Your task to perform on an android device: show emergency info Image 0: 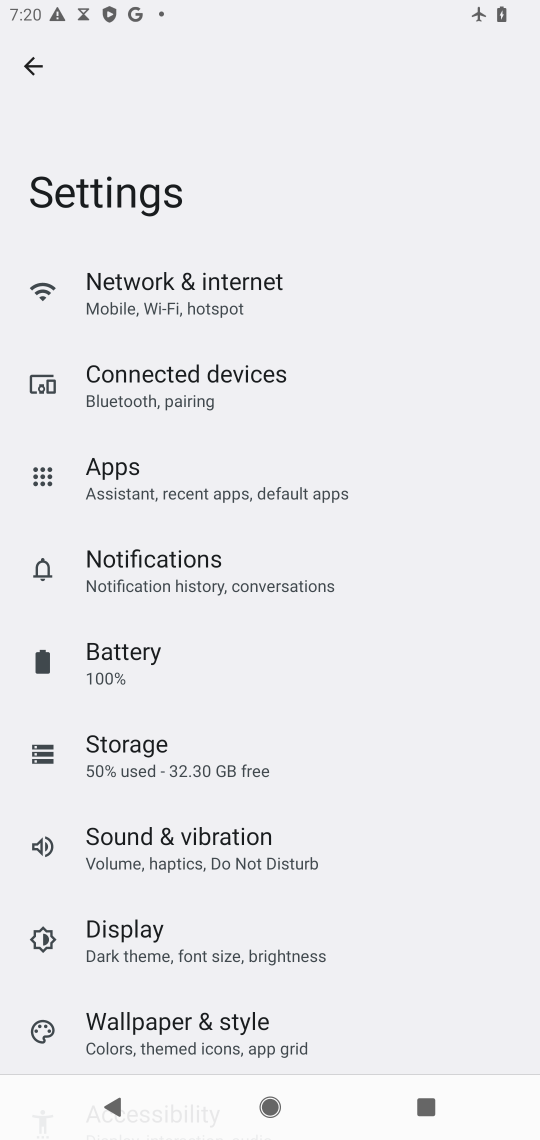
Step 0: press home button
Your task to perform on an android device: show emergency info Image 1: 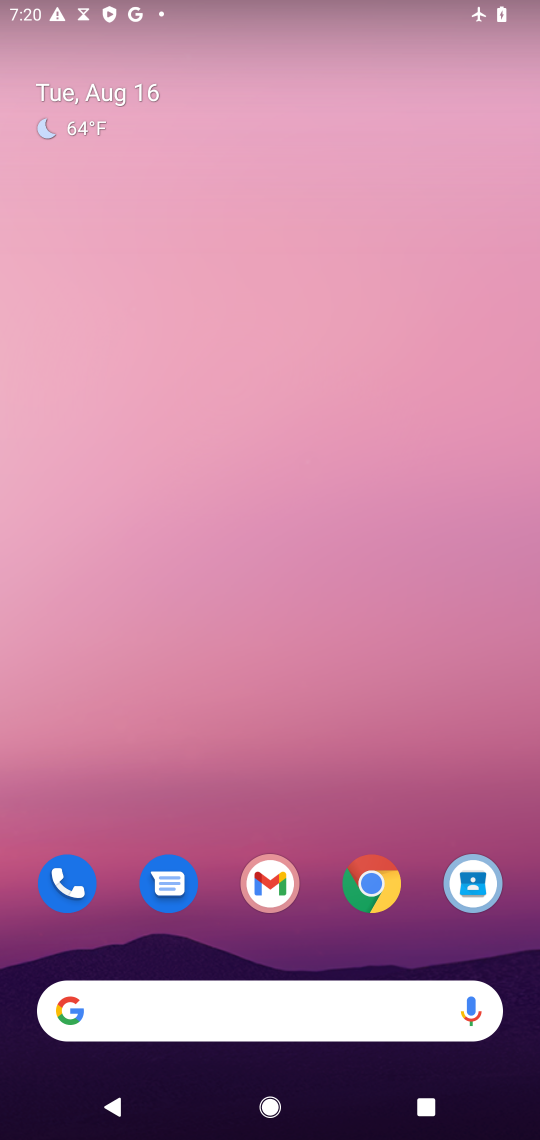
Step 1: drag from (259, 1017) to (280, 210)
Your task to perform on an android device: show emergency info Image 2: 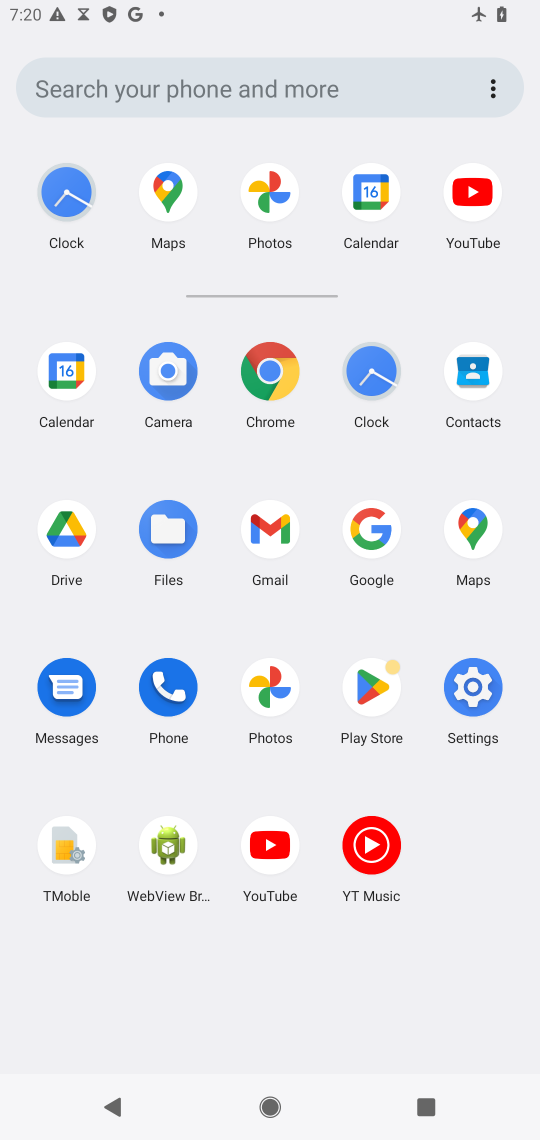
Step 2: click (472, 690)
Your task to perform on an android device: show emergency info Image 3: 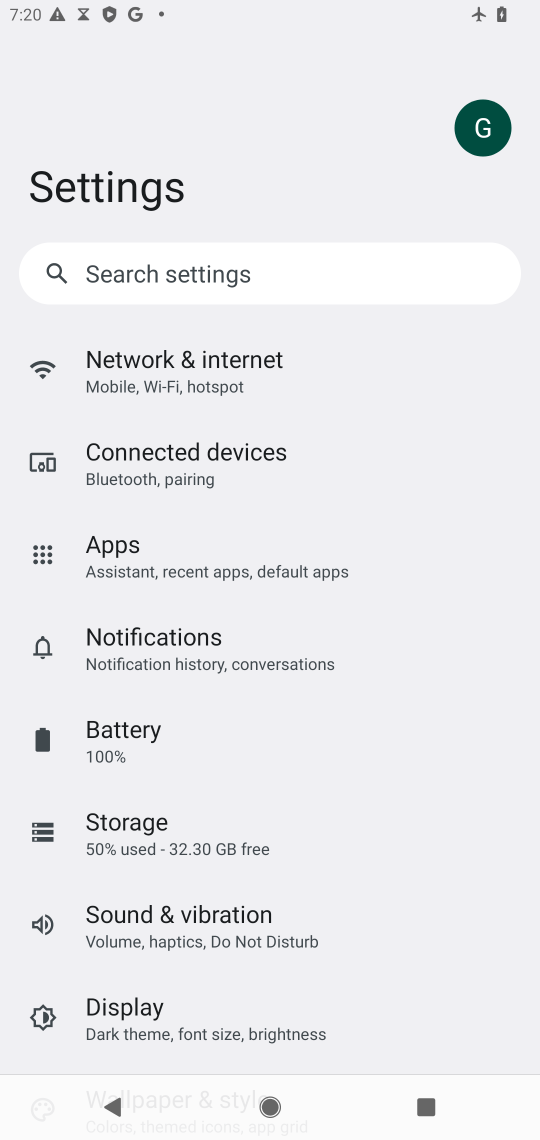
Step 3: drag from (211, 953) to (338, 751)
Your task to perform on an android device: show emergency info Image 4: 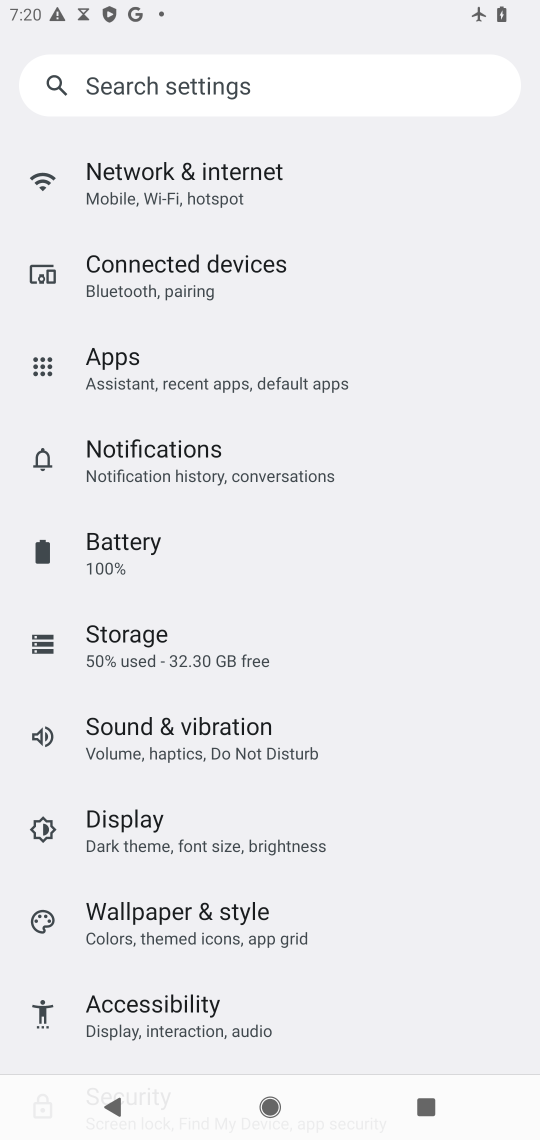
Step 4: drag from (204, 872) to (275, 709)
Your task to perform on an android device: show emergency info Image 5: 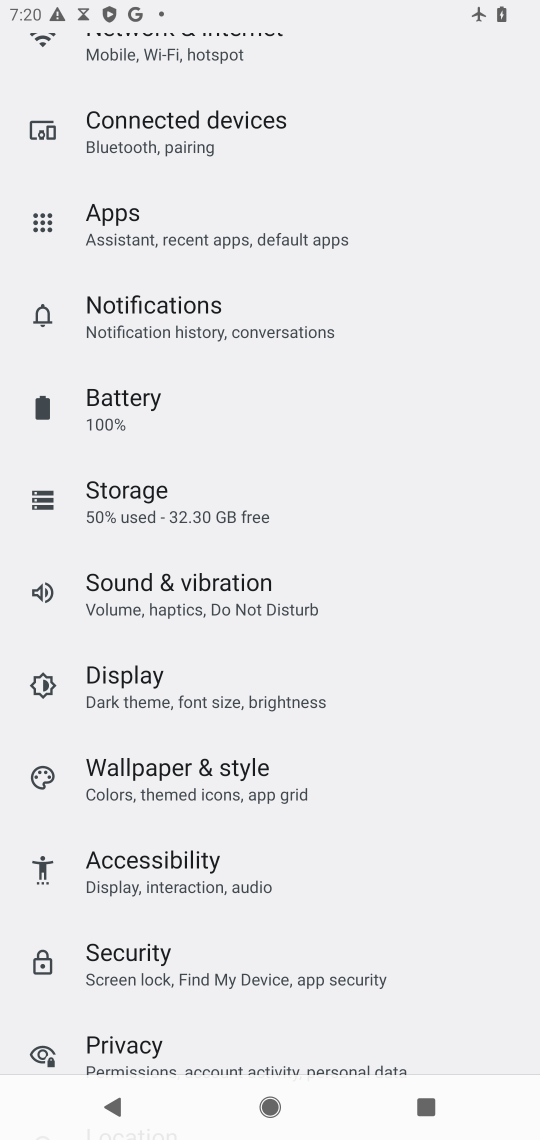
Step 5: drag from (111, 929) to (213, 772)
Your task to perform on an android device: show emergency info Image 6: 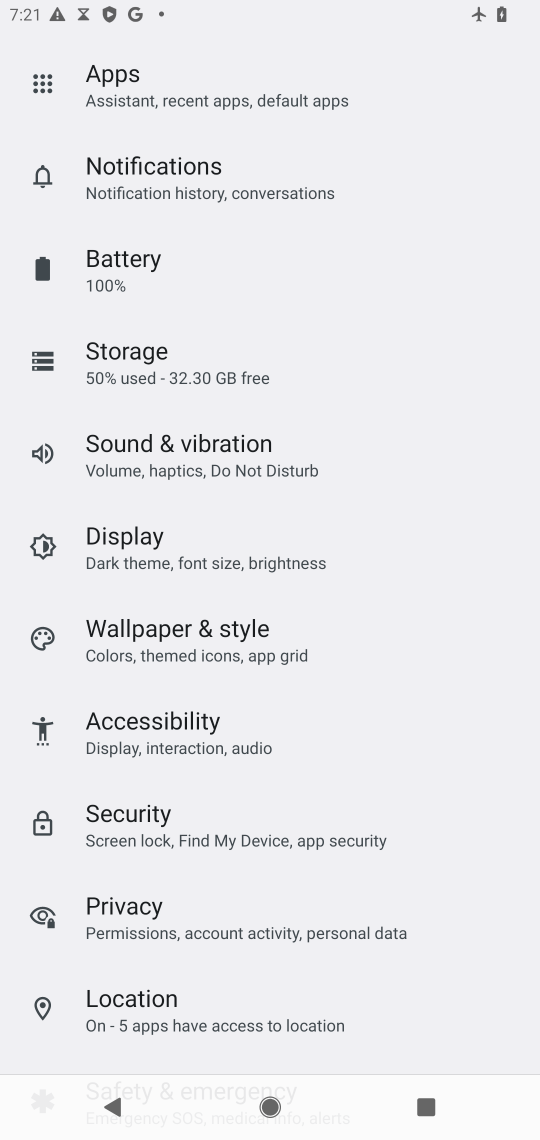
Step 6: drag from (169, 885) to (238, 756)
Your task to perform on an android device: show emergency info Image 7: 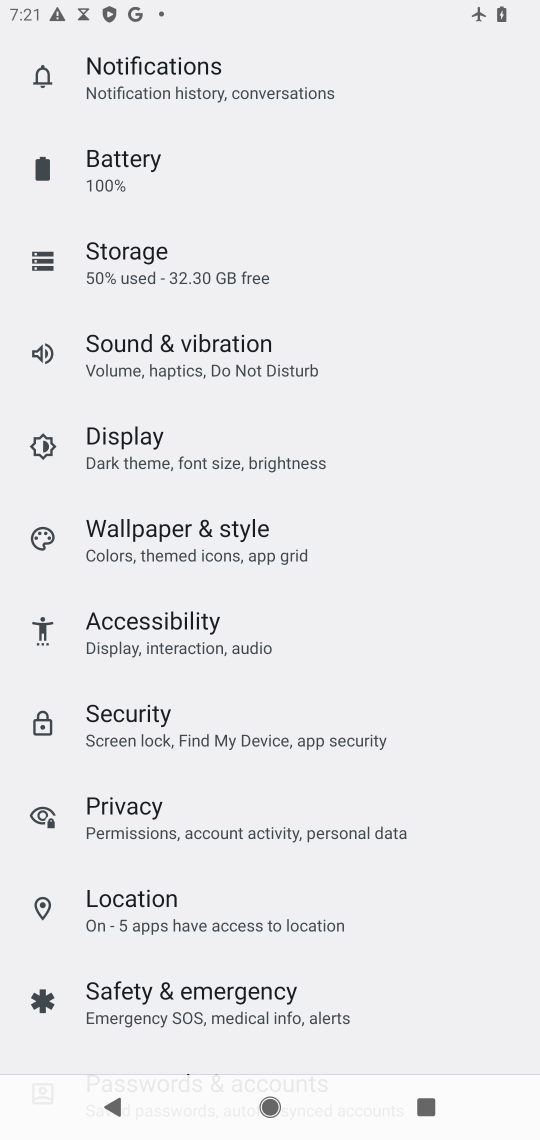
Step 7: drag from (173, 854) to (229, 755)
Your task to perform on an android device: show emergency info Image 8: 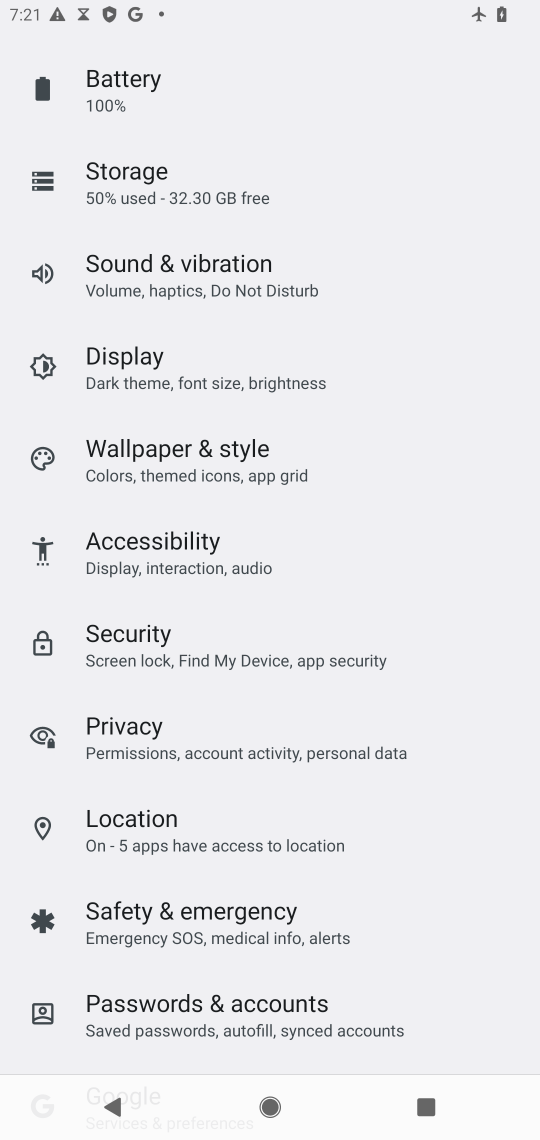
Step 8: drag from (234, 864) to (343, 703)
Your task to perform on an android device: show emergency info Image 9: 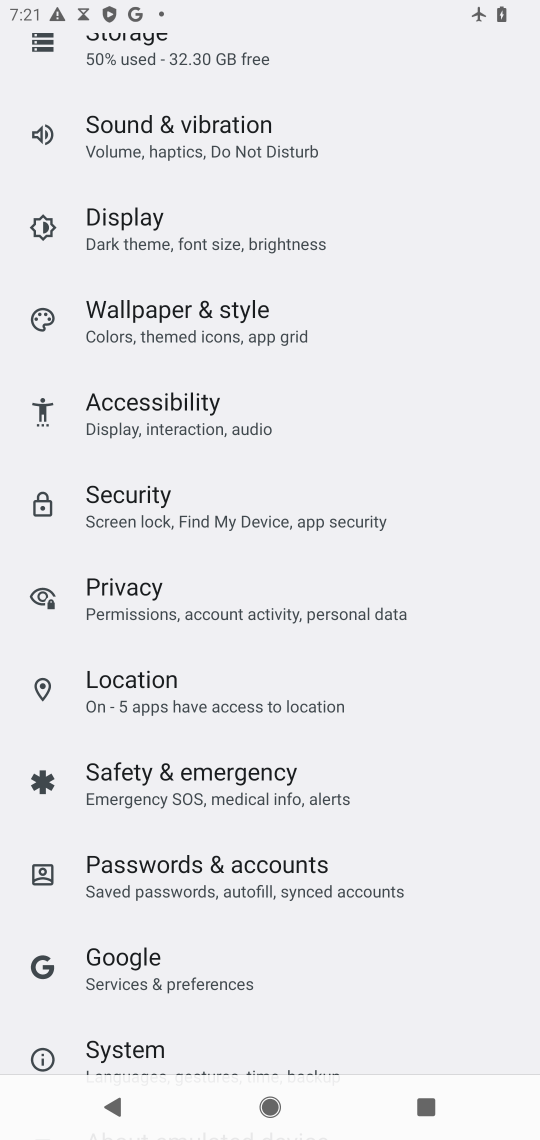
Step 9: click (266, 779)
Your task to perform on an android device: show emergency info Image 10: 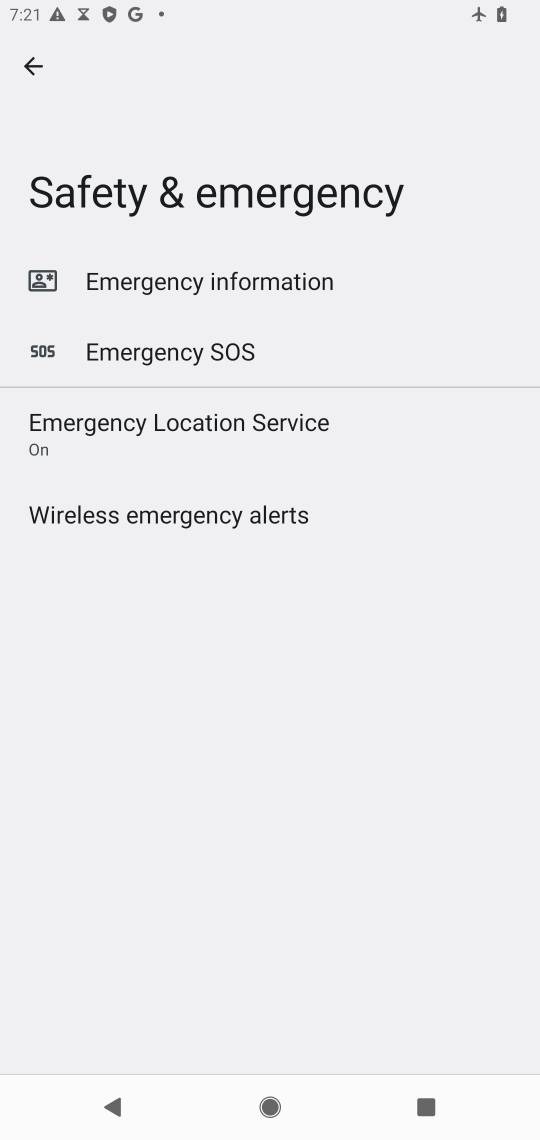
Step 10: click (280, 286)
Your task to perform on an android device: show emergency info Image 11: 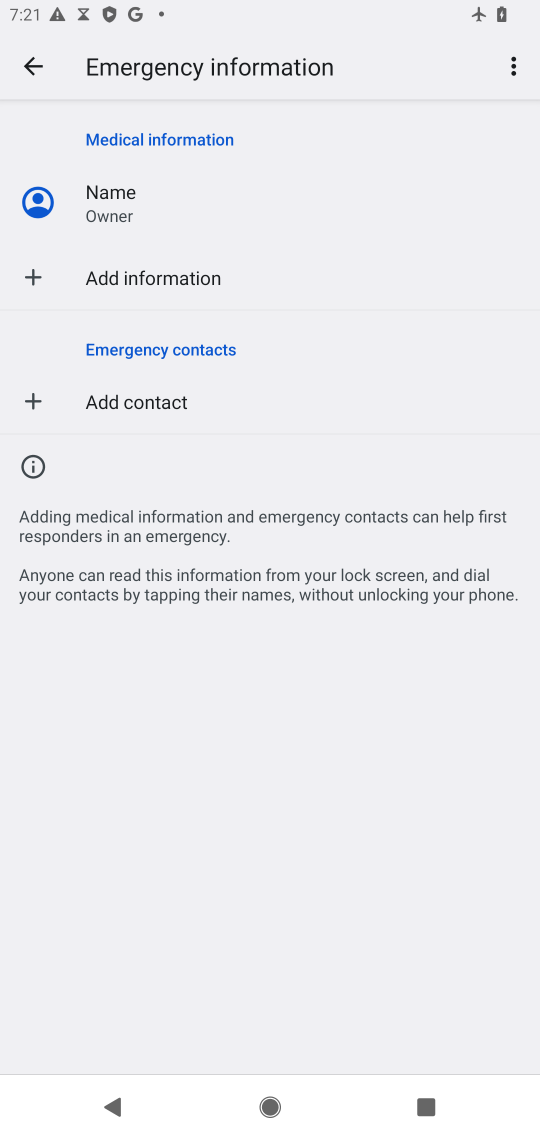
Step 11: task complete